Your task to perform on an android device: Clear the cart on amazon.com. Search for macbook air on amazon.com, select the first entry, add it to the cart, then select checkout. Image 0: 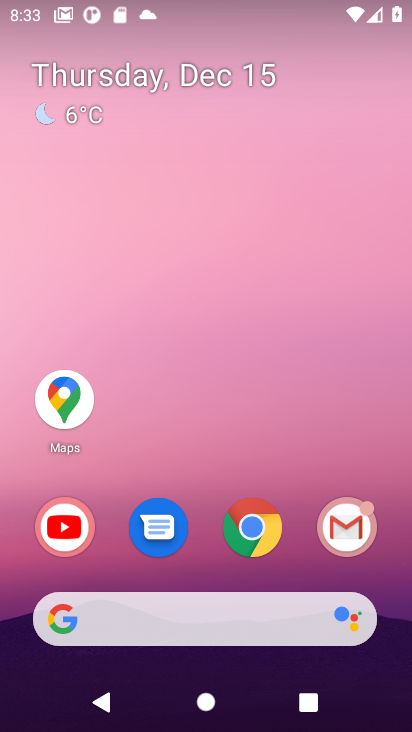
Step 0: click (263, 536)
Your task to perform on an android device: Clear the cart on amazon.com. Search for macbook air on amazon.com, select the first entry, add it to the cart, then select checkout. Image 1: 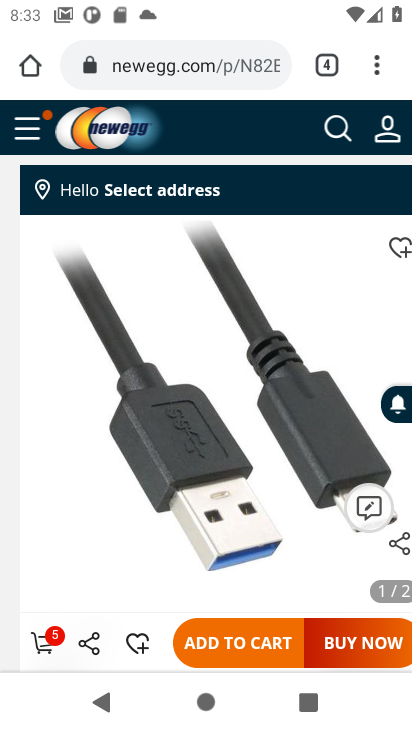
Step 1: click (191, 75)
Your task to perform on an android device: Clear the cart on amazon.com. Search for macbook air on amazon.com, select the first entry, add it to the cart, then select checkout. Image 2: 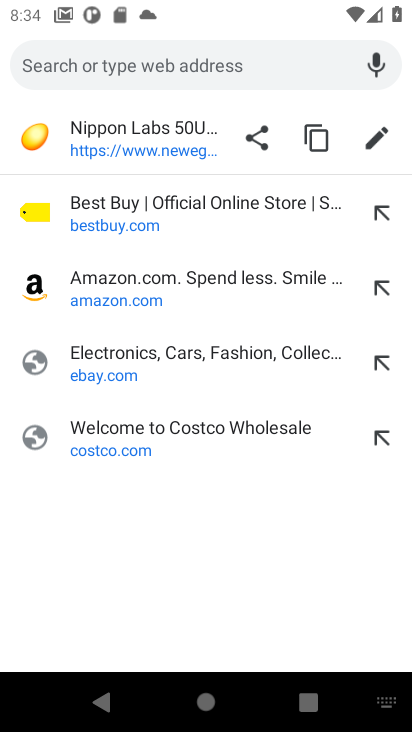
Step 2: click (122, 301)
Your task to perform on an android device: Clear the cart on amazon.com. Search for macbook air on amazon.com, select the first entry, add it to the cart, then select checkout. Image 3: 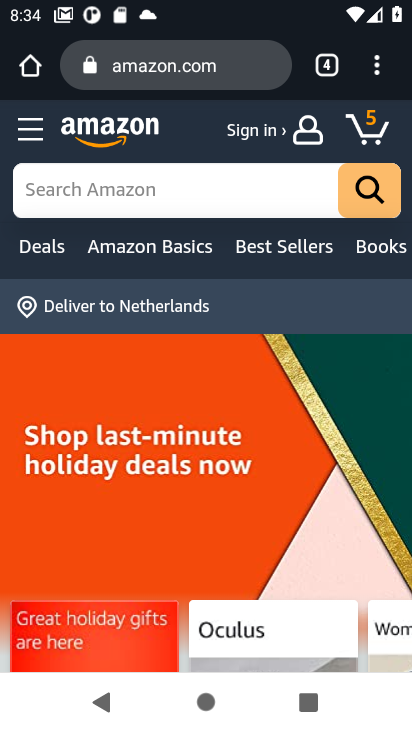
Step 3: click (123, 184)
Your task to perform on an android device: Clear the cart on amazon.com. Search for macbook air on amazon.com, select the first entry, add it to the cart, then select checkout. Image 4: 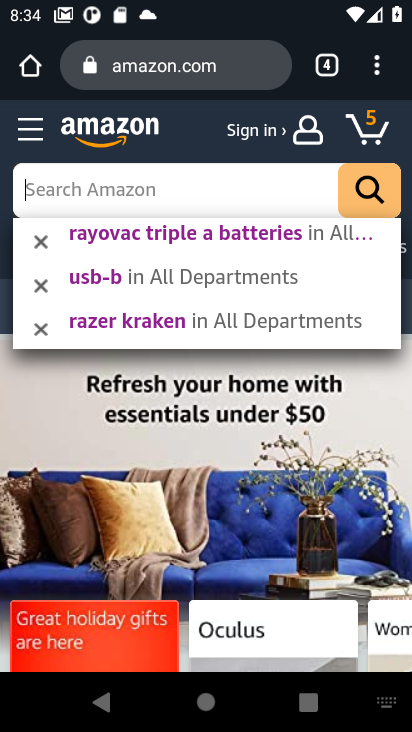
Step 4: type "macbook air "
Your task to perform on an android device: Clear the cart on amazon.com. Search for macbook air on amazon.com, select the first entry, add it to the cart, then select checkout. Image 5: 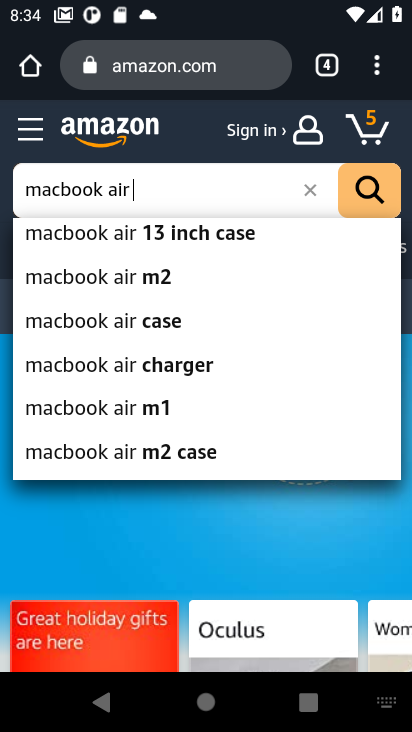
Step 5: click (342, 211)
Your task to perform on an android device: Clear the cart on amazon.com. Search for macbook air on amazon.com, select the first entry, add it to the cart, then select checkout. Image 6: 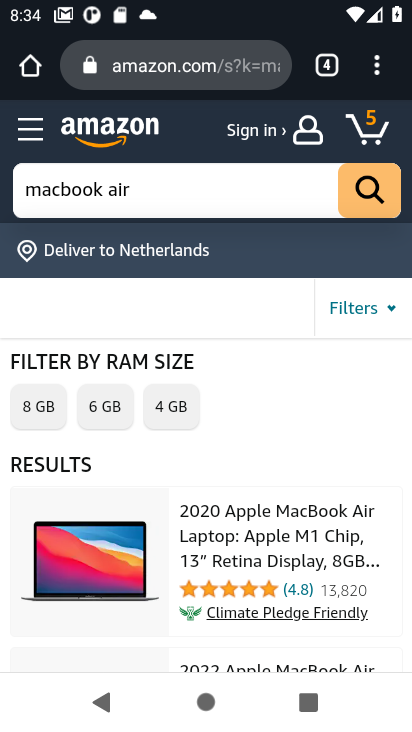
Step 6: click (233, 558)
Your task to perform on an android device: Clear the cart on amazon.com. Search for macbook air on amazon.com, select the first entry, add it to the cart, then select checkout. Image 7: 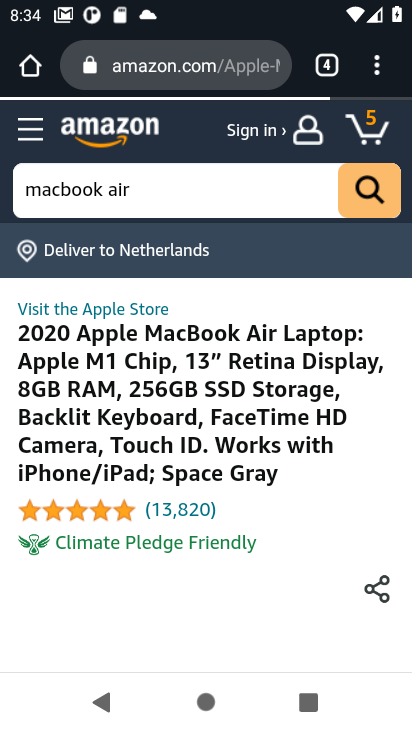
Step 7: task complete